Your task to perform on an android device: read, delete, or share a saved page in the chrome app Image 0: 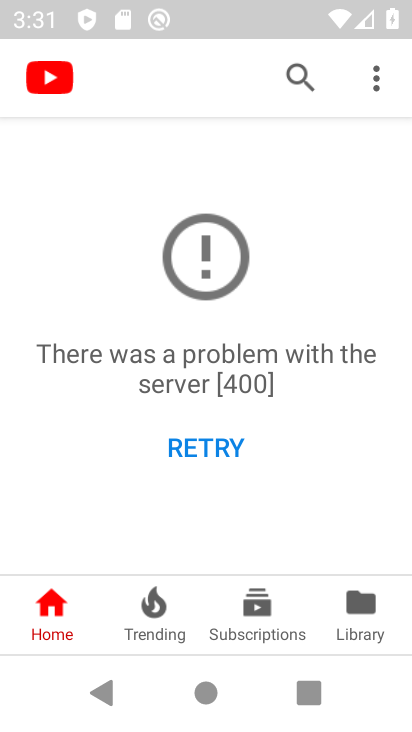
Step 0: press home button
Your task to perform on an android device: read, delete, or share a saved page in the chrome app Image 1: 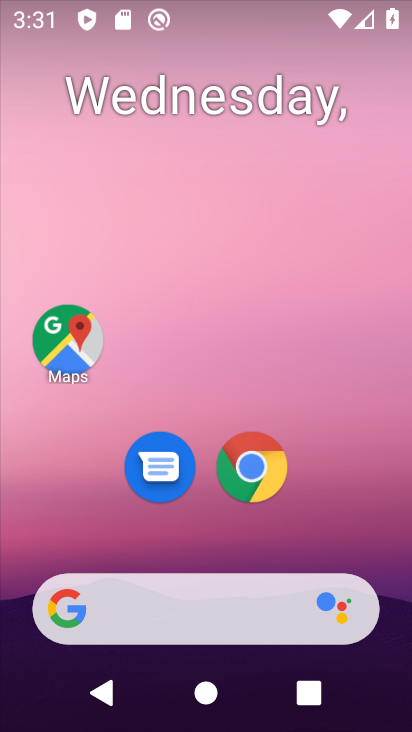
Step 1: click (240, 465)
Your task to perform on an android device: read, delete, or share a saved page in the chrome app Image 2: 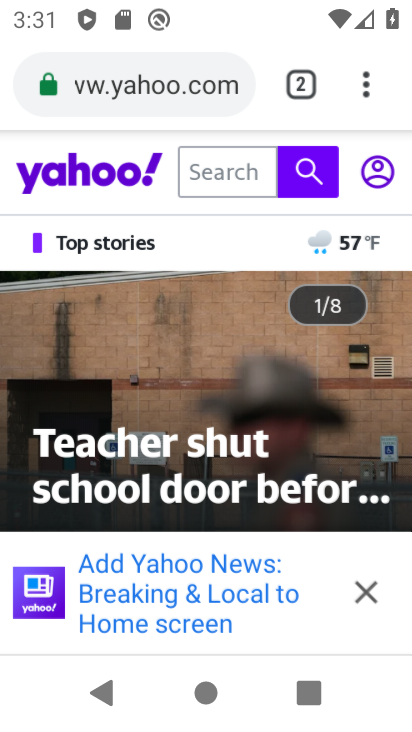
Step 2: click (366, 82)
Your task to perform on an android device: read, delete, or share a saved page in the chrome app Image 3: 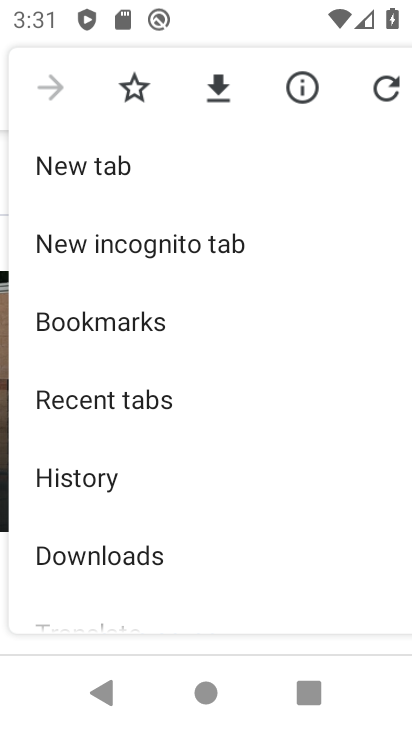
Step 3: click (164, 560)
Your task to perform on an android device: read, delete, or share a saved page in the chrome app Image 4: 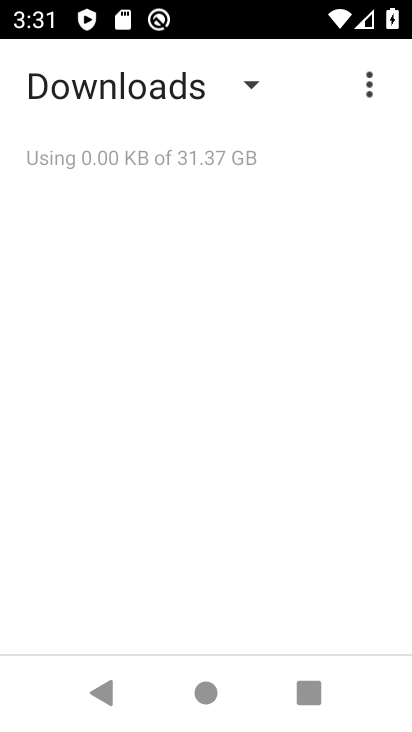
Step 4: click (113, 72)
Your task to perform on an android device: read, delete, or share a saved page in the chrome app Image 5: 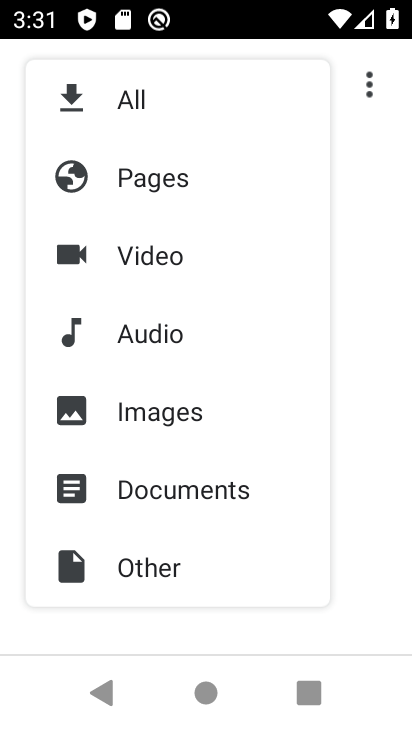
Step 5: click (142, 192)
Your task to perform on an android device: read, delete, or share a saved page in the chrome app Image 6: 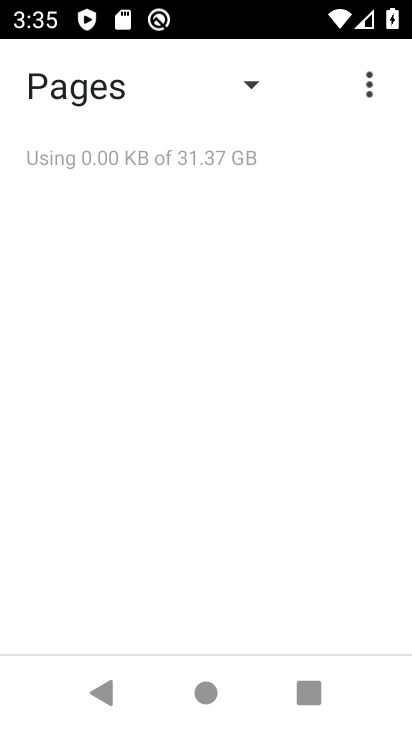
Step 6: task complete